Your task to perform on an android device: What's the weather? Image 0: 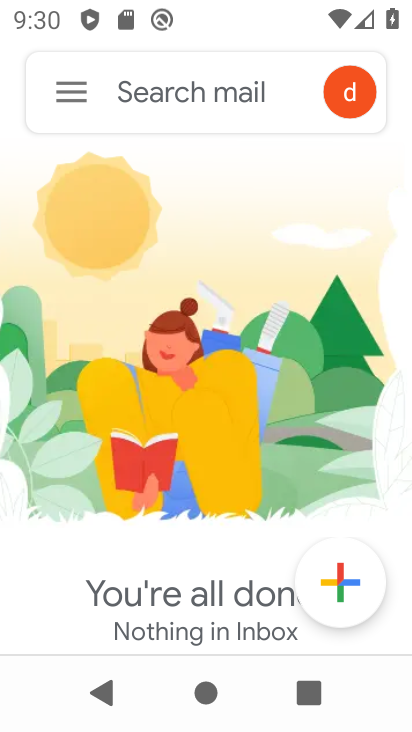
Step 0: press home button
Your task to perform on an android device: What's the weather? Image 1: 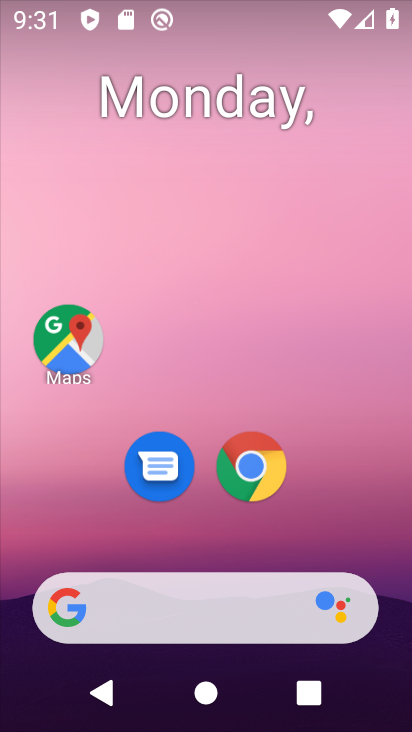
Step 1: drag from (342, 553) to (352, 101)
Your task to perform on an android device: What's the weather? Image 2: 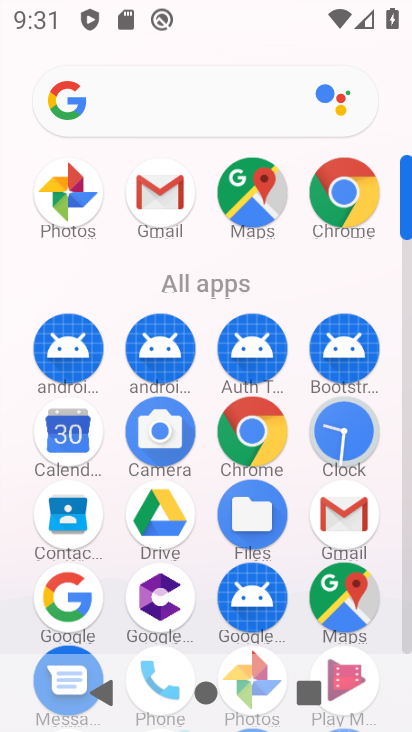
Step 2: click (346, 216)
Your task to perform on an android device: What's the weather? Image 3: 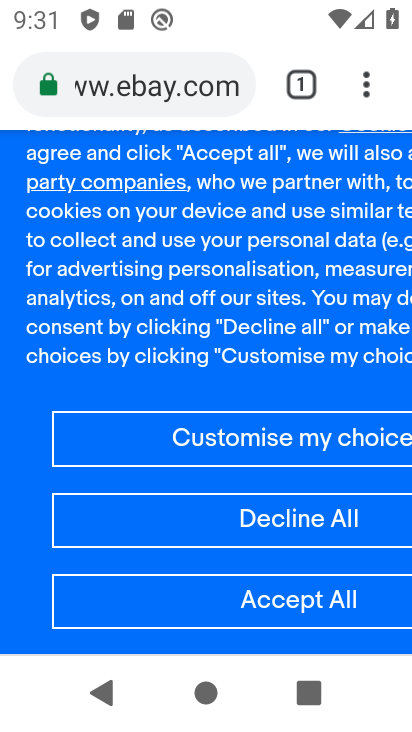
Step 3: click (215, 102)
Your task to perform on an android device: What's the weather? Image 4: 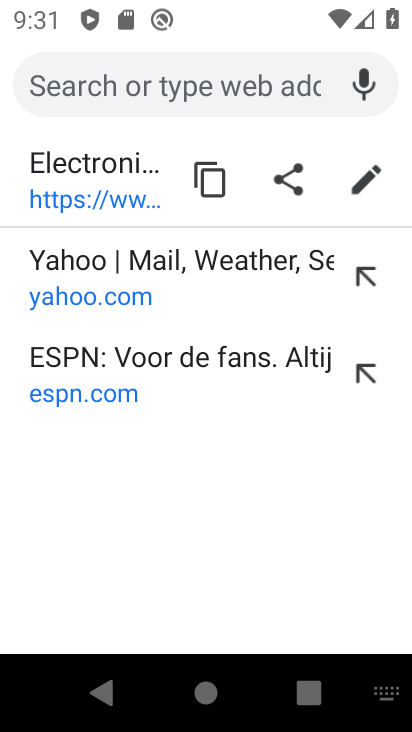
Step 4: type "What's the weather?"
Your task to perform on an android device: What's the weather? Image 5: 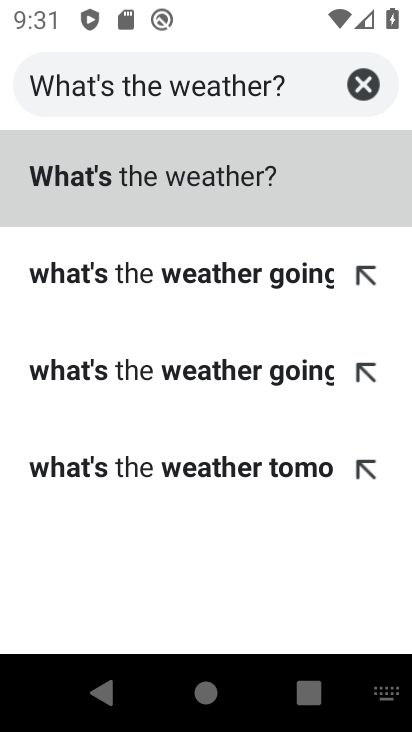
Step 5: click (193, 162)
Your task to perform on an android device: What's the weather? Image 6: 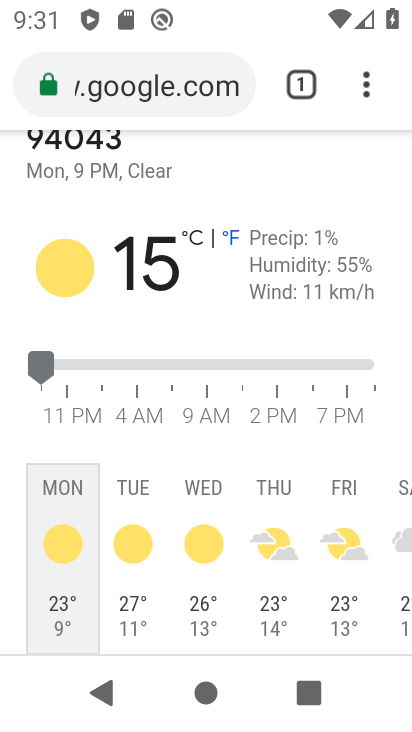
Step 6: task complete